Your task to perform on an android device: Open the web browser Image 0: 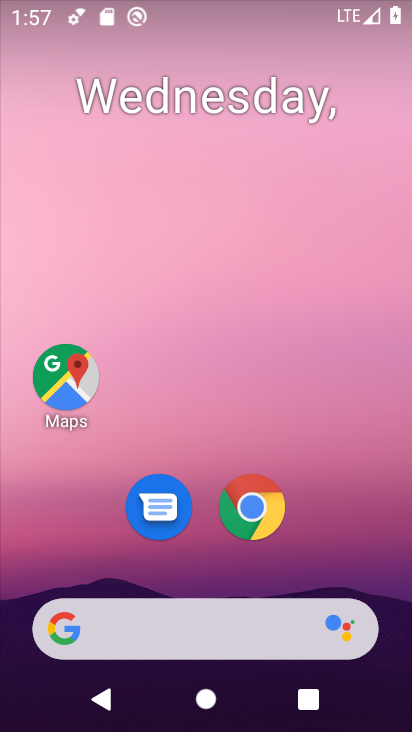
Step 0: click (258, 500)
Your task to perform on an android device: Open the web browser Image 1: 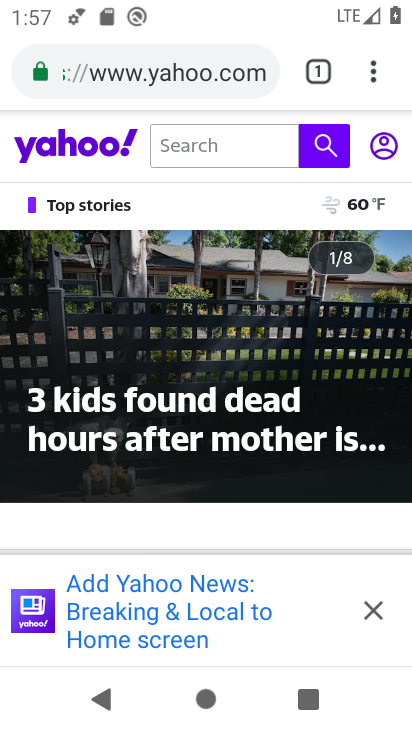
Step 1: task complete